Your task to perform on an android device: change timer sound Image 0: 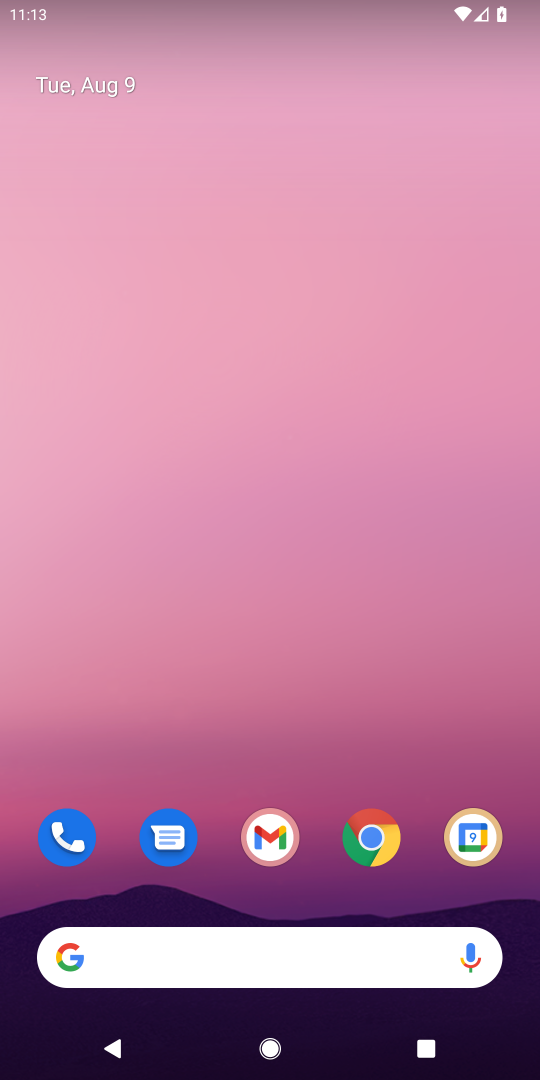
Step 0: drag from (352, 912) to (362, 267)
Your task to perform on an android device: change timer sound Image 1: 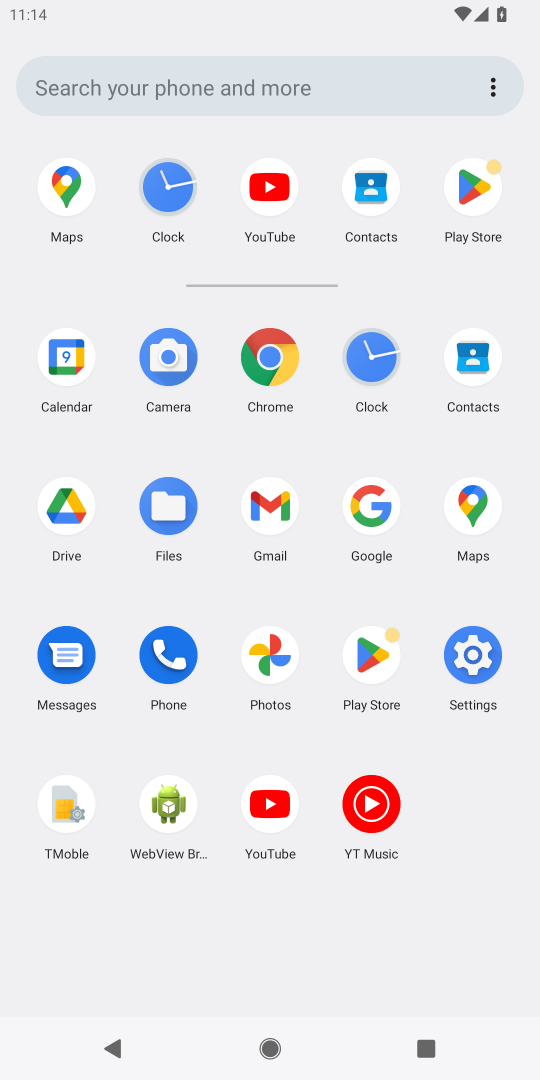
Step 1: click (376, 359)
Your task to perform on an android device: change timer sound Image 2: 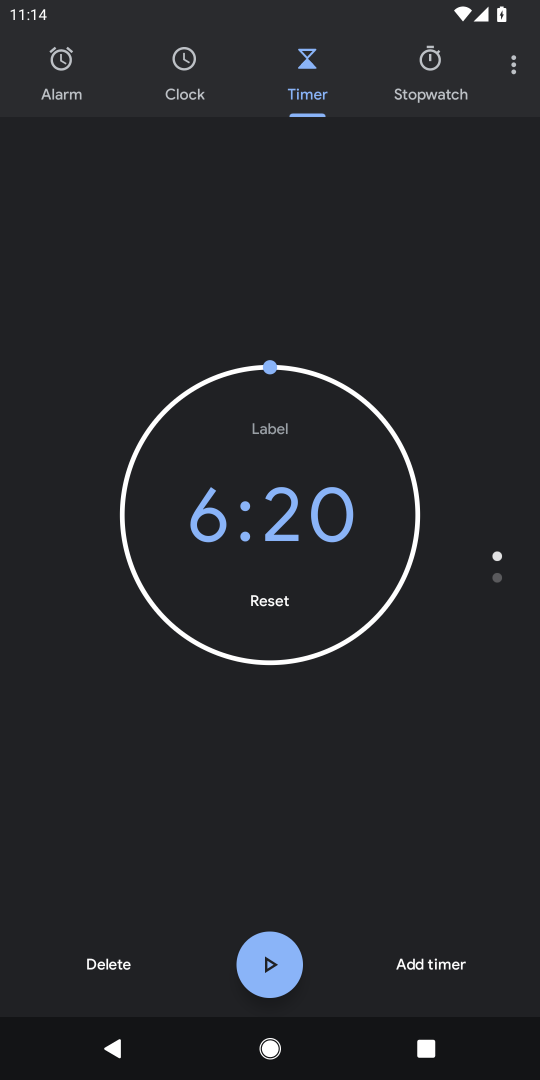
Step 2: click (515, 75)
Your task to perform on an android device: change timer sound Image 3: 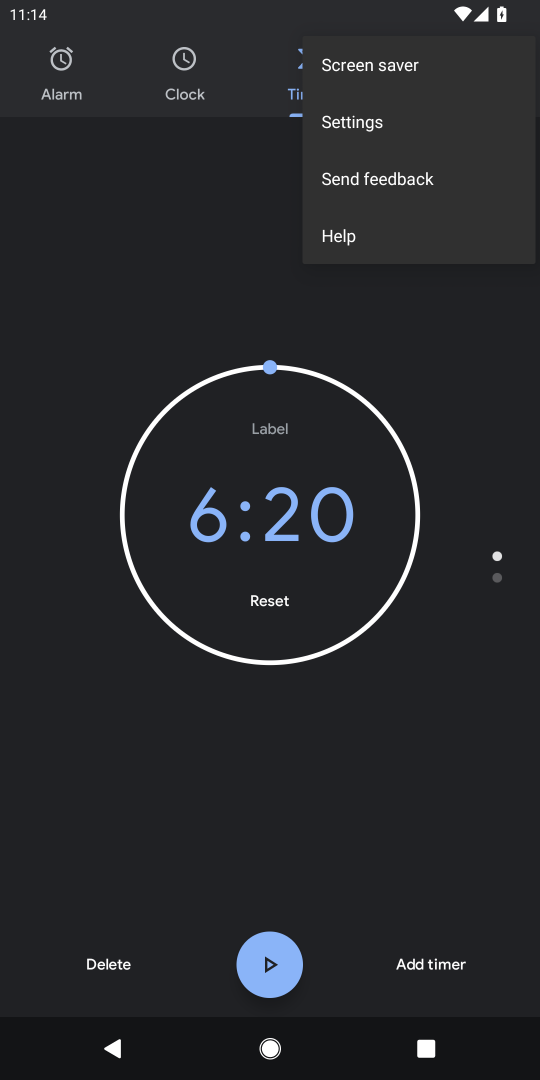
Step 3: click (348, 120)
Your task to perform on an android device: change timer sound Image 4: 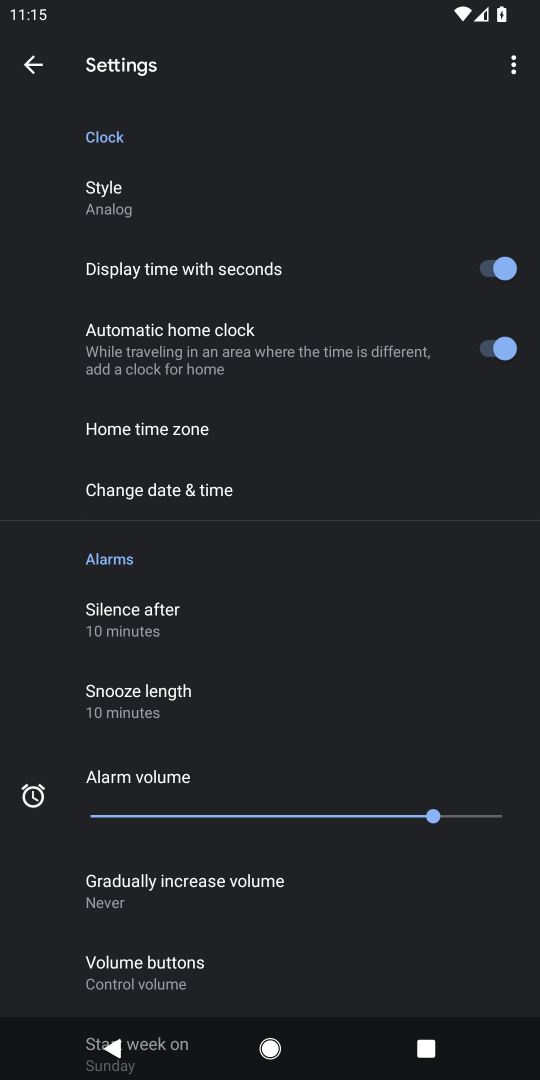
Step 4: drag from (250, 950) to (279, 561)
Your task to perform on an android device: change timer sound Image 5: 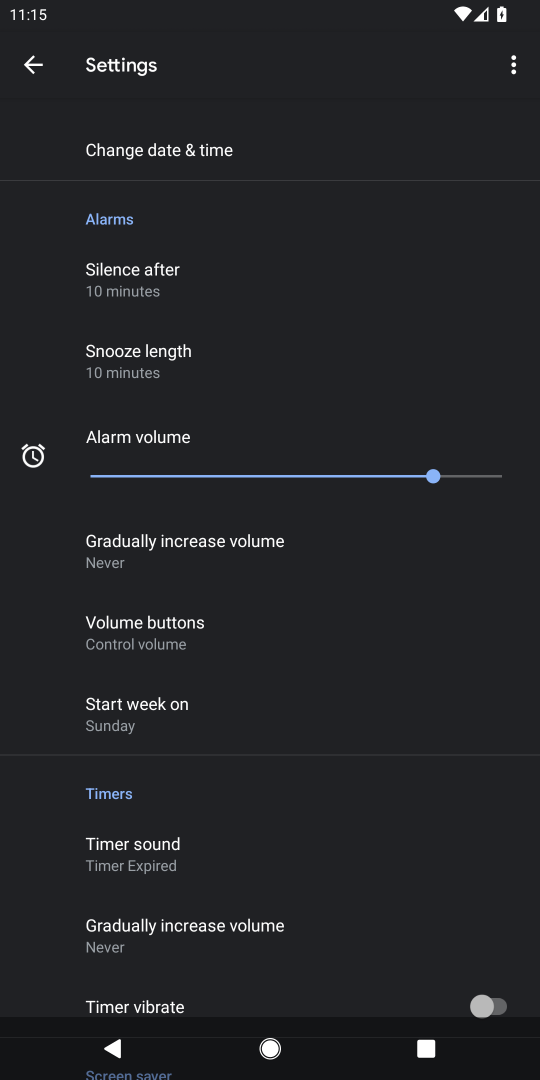
Step 5: click (165, 847)
Your task to perform on an android device: change timer sound Image 6: 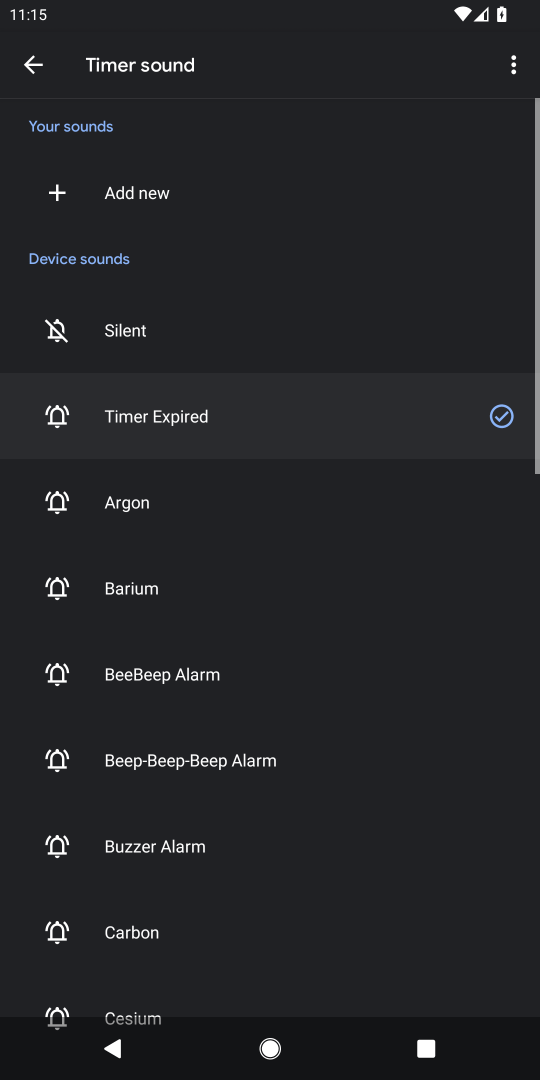
Step 6: click (160, 836)
Your task to perform on an android device: change timer sound Image 7: 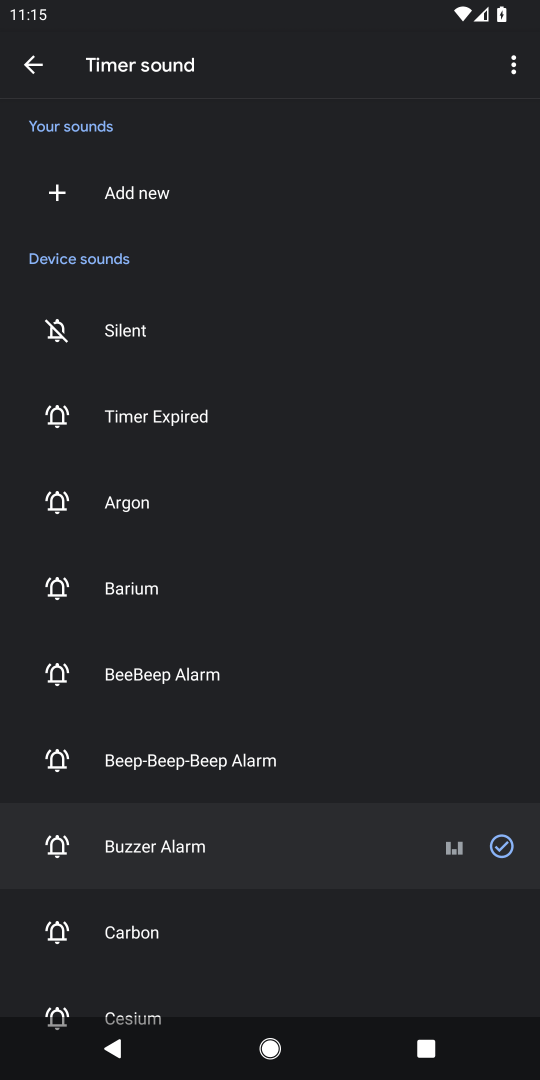
Step 7: task complete